Your task to perform on an android device: Look up the best rated gaming chair on Best Buy Image 0: 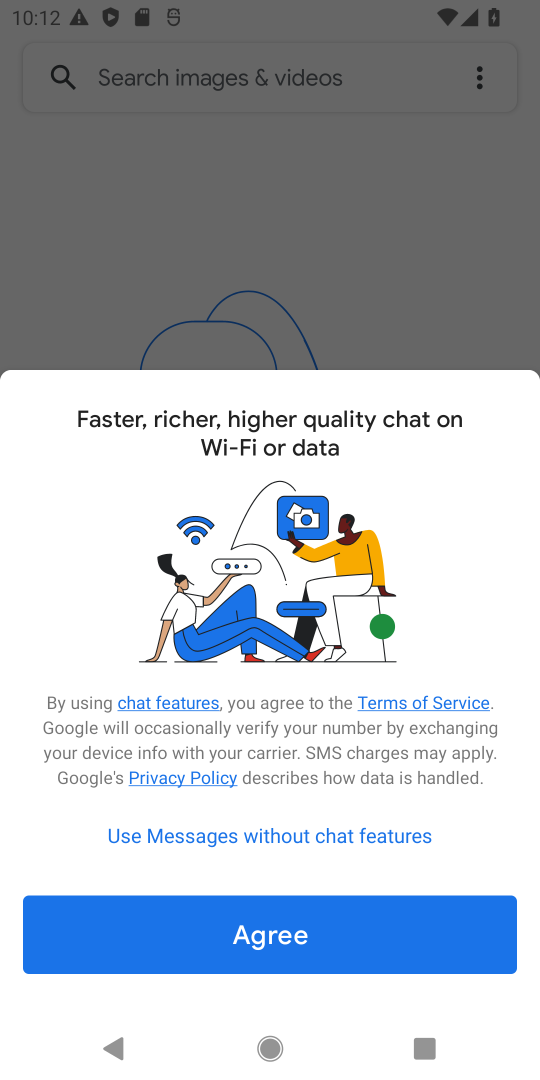
Step 0: press home button
Your task to perform on an android device: Look up the best rated gaming chair on Best Buy Image 1: 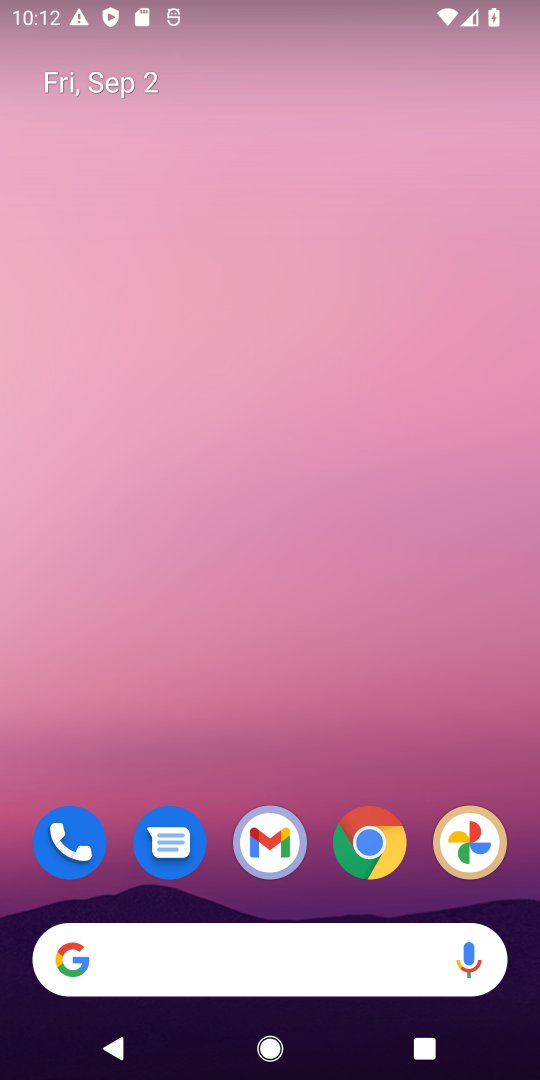
Step 1: drag from (228, 803) to (195, 183)
Your task to perform on an android device: Look up the best rated gaming chair on Best Buy Image 2: 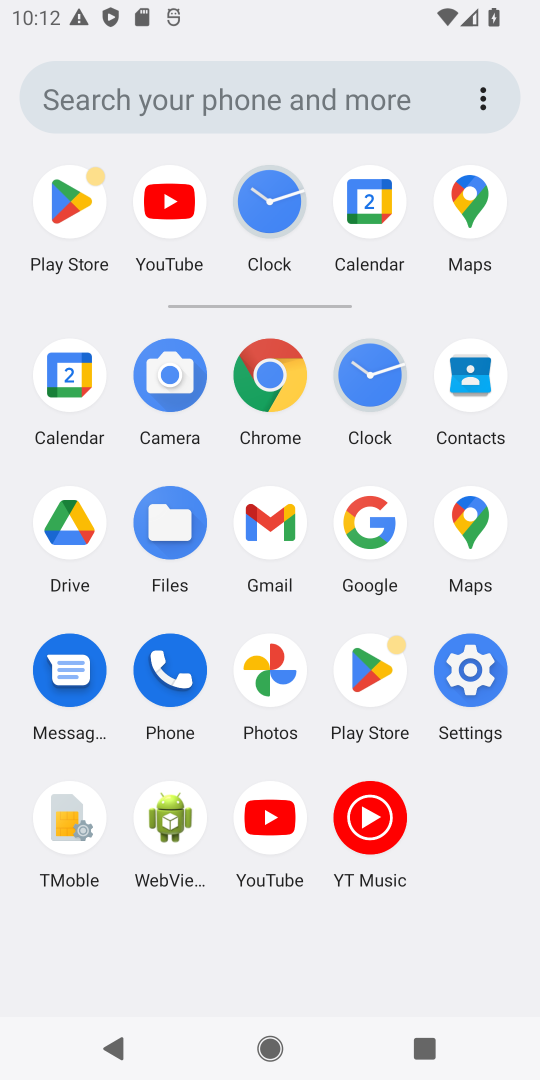
Step 2: click (258, 383)
Your task to perform on an android device: Look up the best rated gaming chair on Best Buy Image 3: 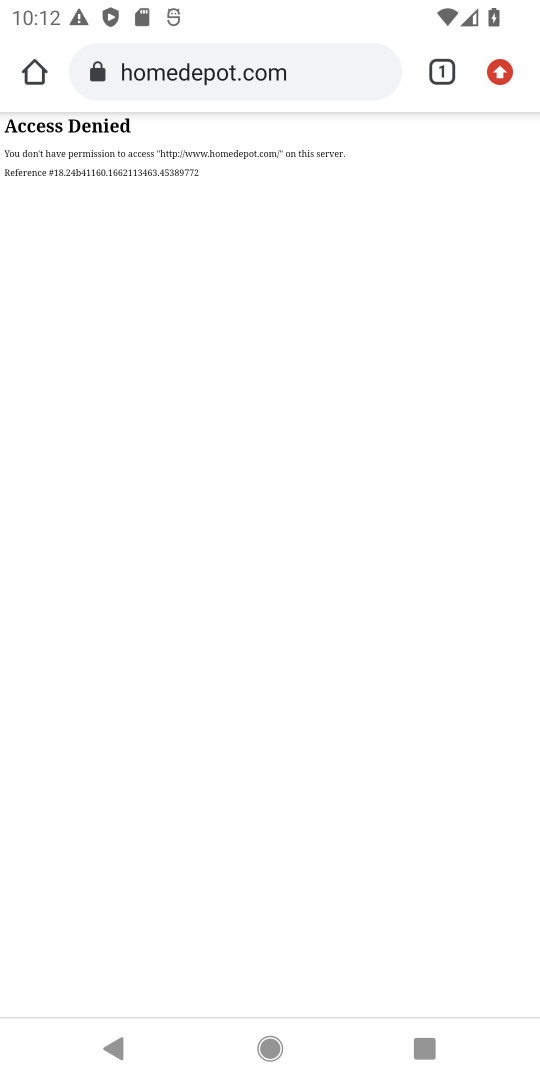
Step 3: click (237, 94)
Your task to perform on an android device: Look up the best rated gaming chair on Best Buy Image 4: 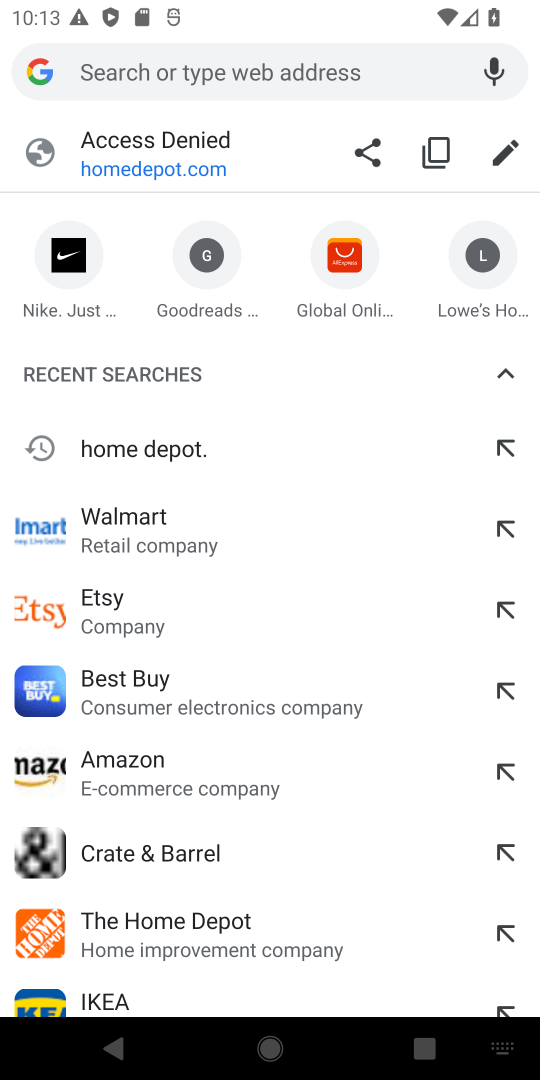
Step 4: type " Best Buy"
Your task to perform on an android device: Look up the best rated gaming chair on Best Buy Image 5: 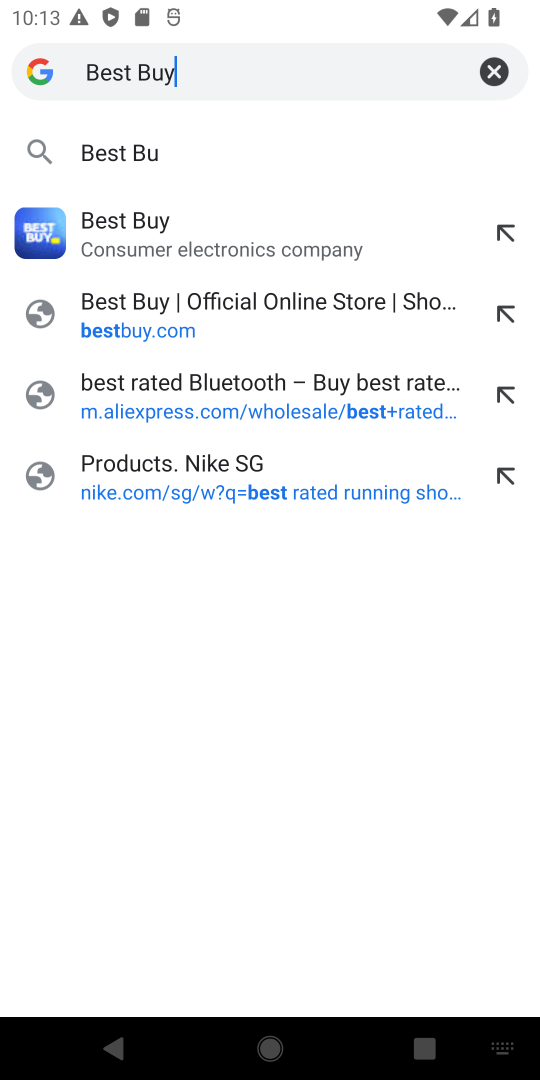
Step 5: press enter
Your task to perform on an android device: Look up the best rated gaming chair on Best Buy Image 6: 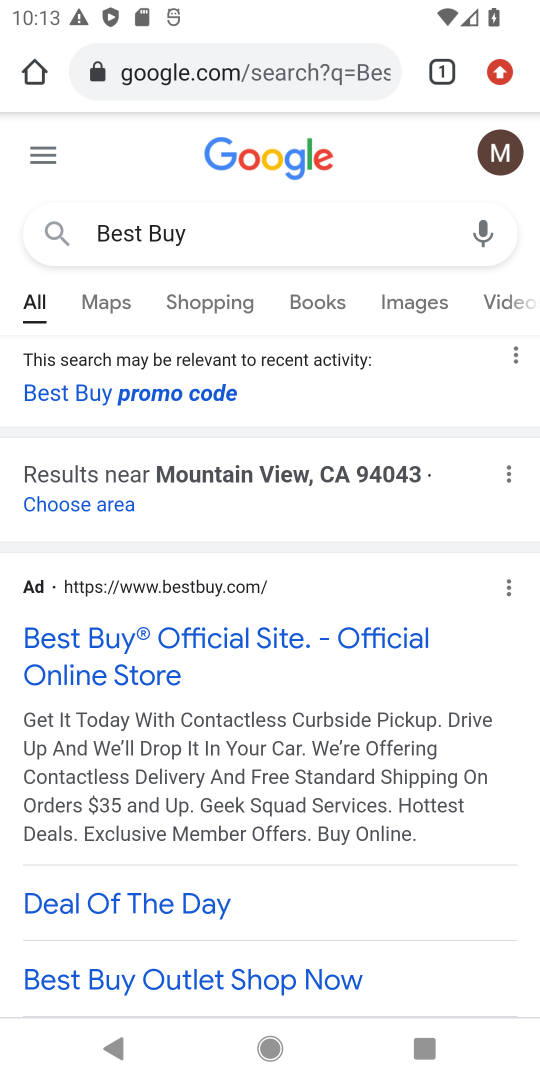
Step 6: drag from (376, 601) to (410, 479)
Your task to perform on an android device: Look up the best rated gaming chair on Best Buy Image 7: 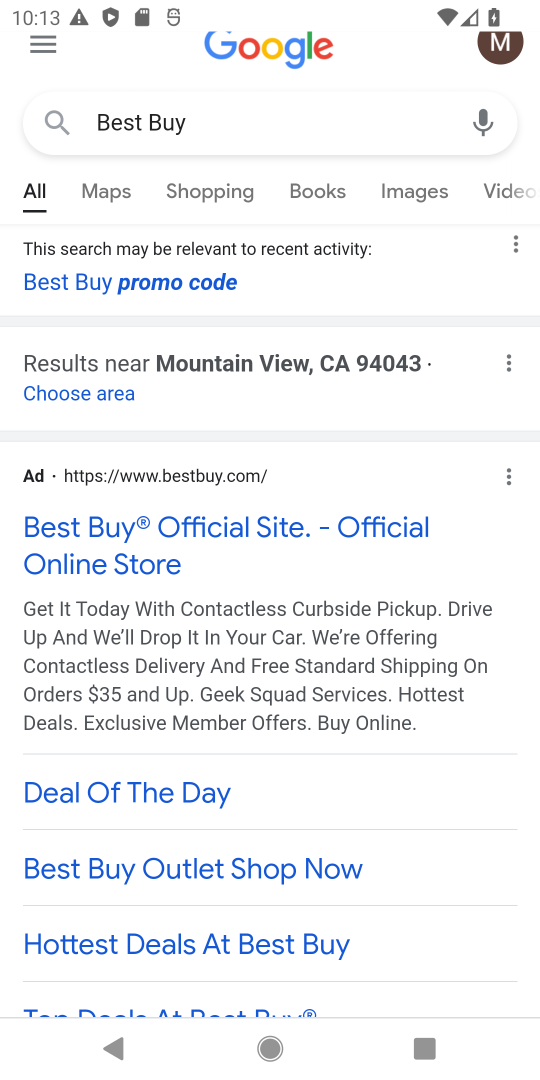
Step 7: drag from (310, 700) to (303, 522)
Your task to perform on an android device: Look up the best rated gaming chair on Best Buy Image 8: 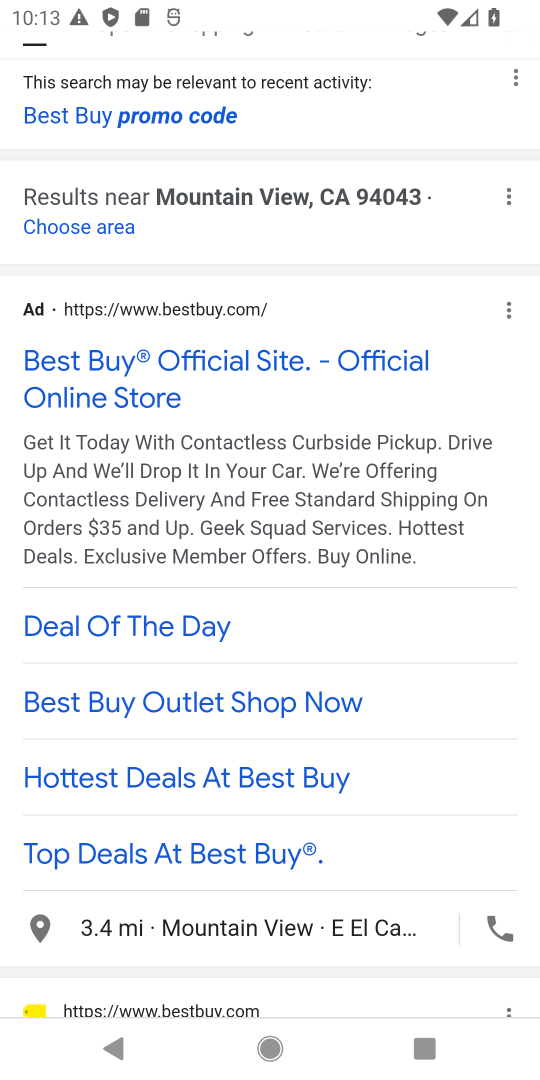
Step 8: drag from (241, 832) to (261, 453)
Your task to perform on an android device: Look up the best rated gaming chair on Best Buy Image 9: 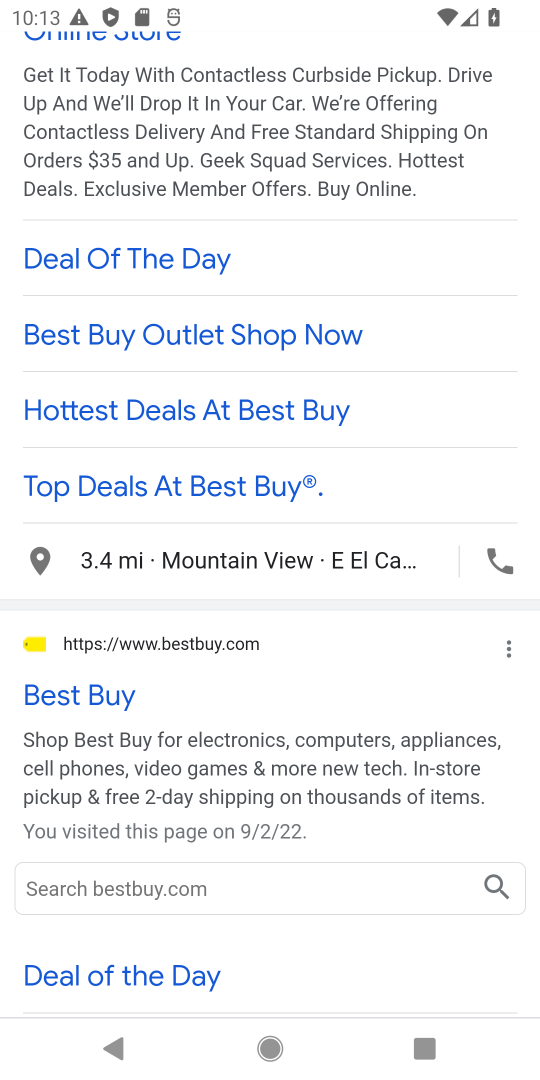
Step 9: click (89, 694)
Your task to perform on an android device: Look up the best rated gaming chair on Best Buy Image 10: 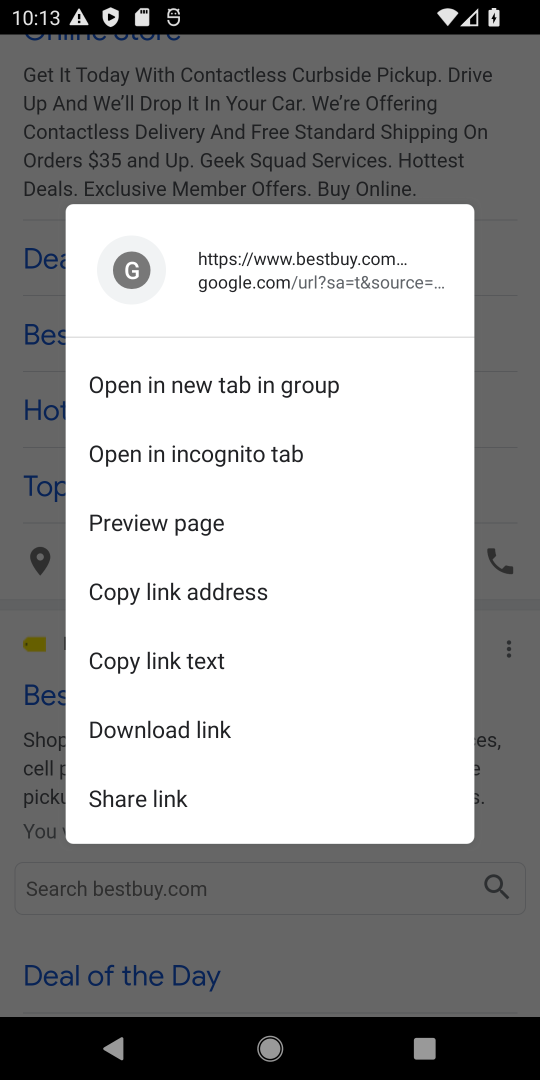
Step 10: click (511, 478)
Your task to perform on an android device: Look up the best rated gaming chair on Best Buy Image 11: 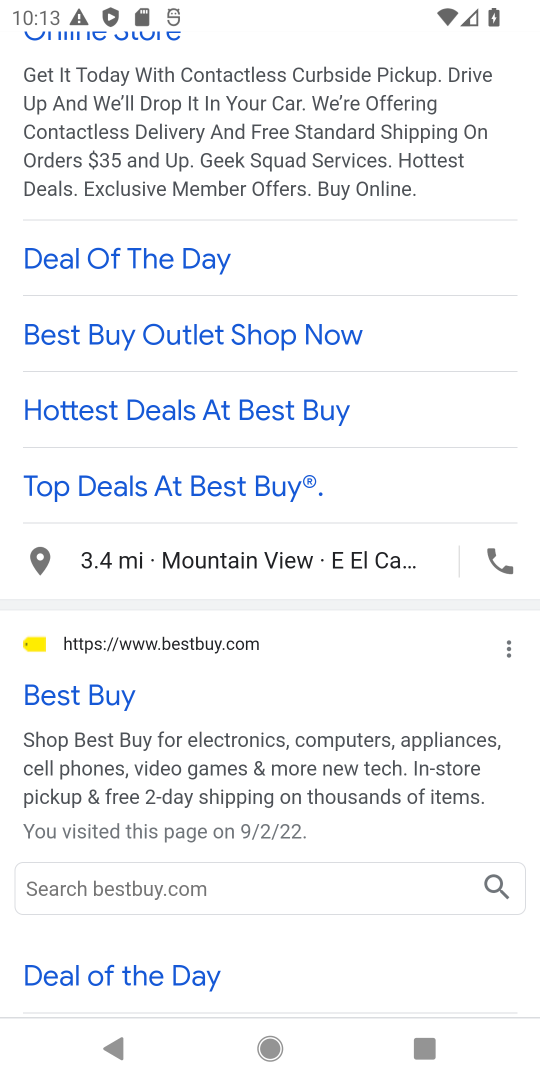
Step 11: click (87, 704)
Your task to perform on an android device: Look up the best rated gaming chair on Best Buy Image 12: 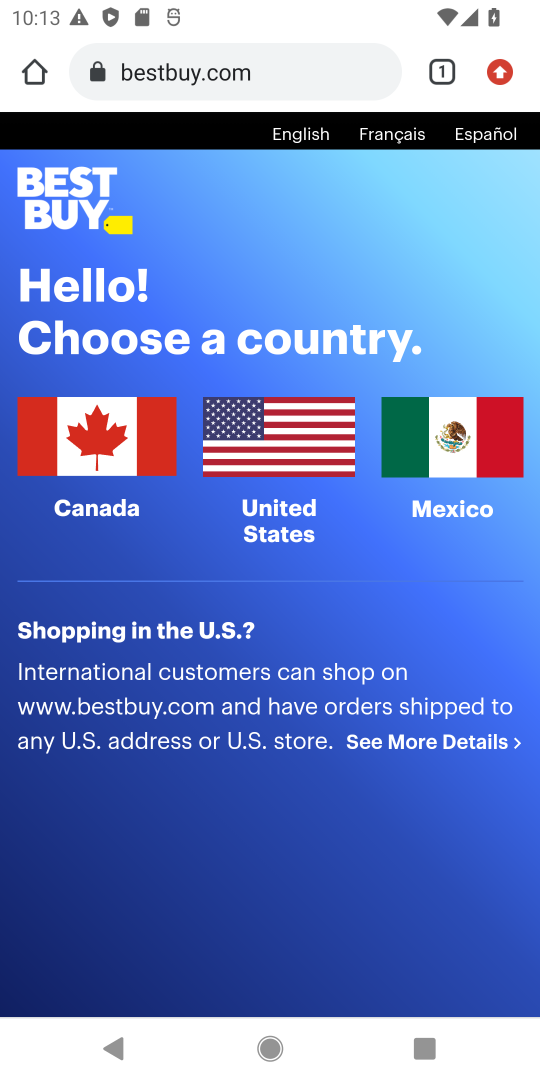
Step 12: click (271, 461)
Your task to perform on an android device: Look up the best rated gaming chair on Best Buy Image 13: 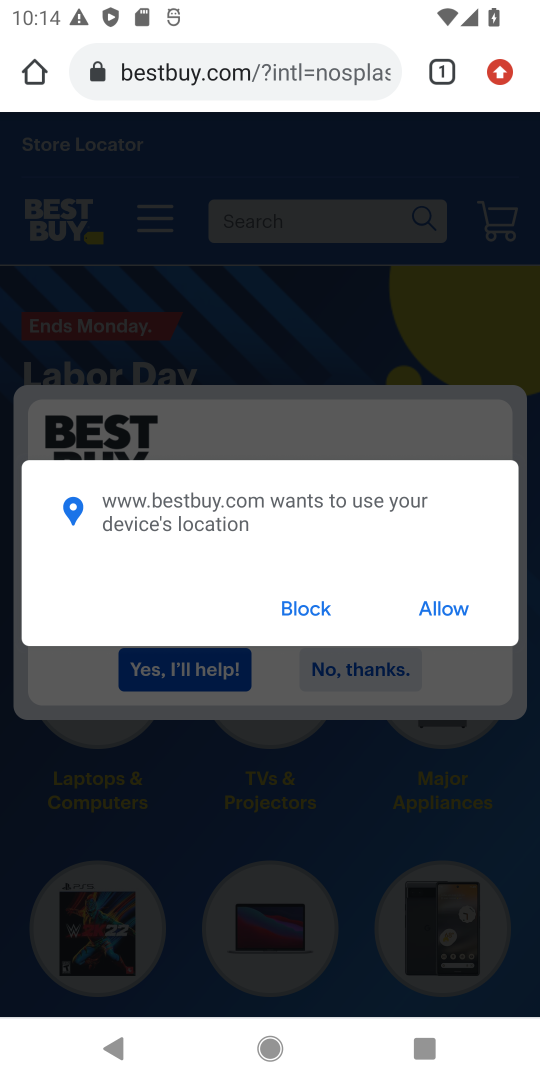
Step 13: click (449, 604)
Your task to perform on an android device: Look up the best rated gaming chair on Best Buy Image 14: 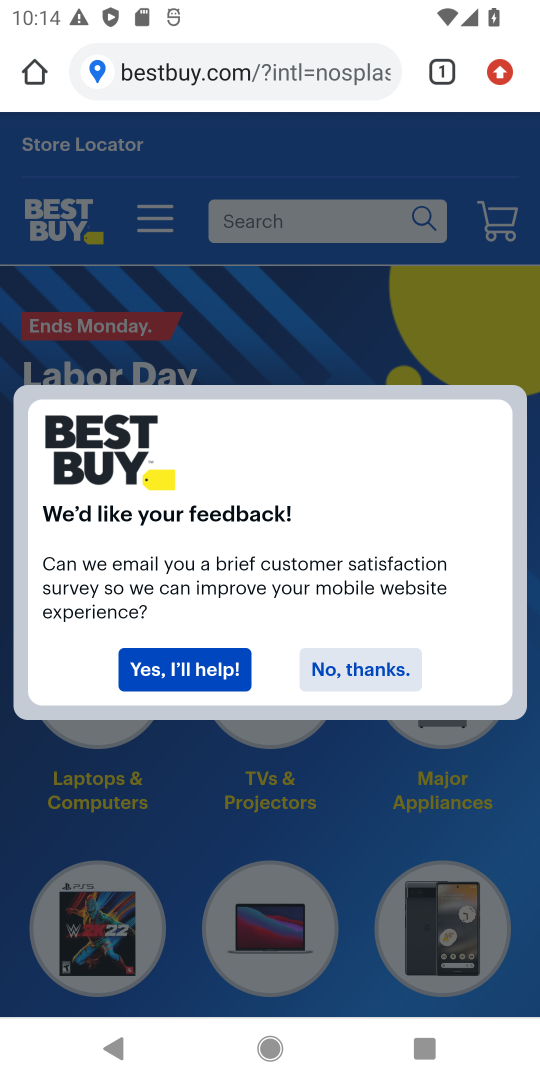
Step 14: click (349, 647)
Your task to perform on an android device: Look up the best rated gaming chair on Best Buy Image 15: 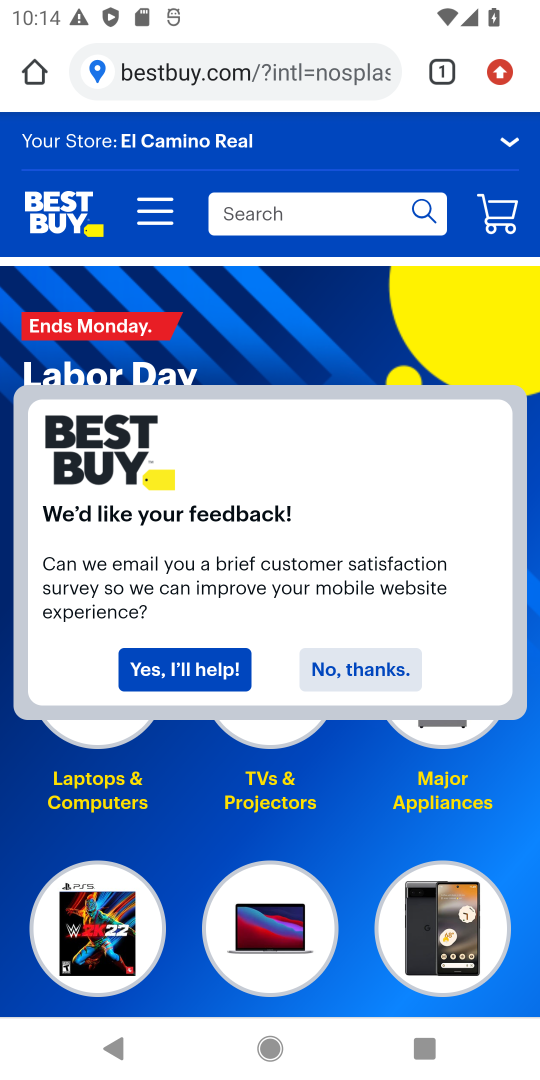
Step 15: click (305, 197)
Your task to perform on an android device: Look up the best rated gaming chair on Best Buy Image 16: 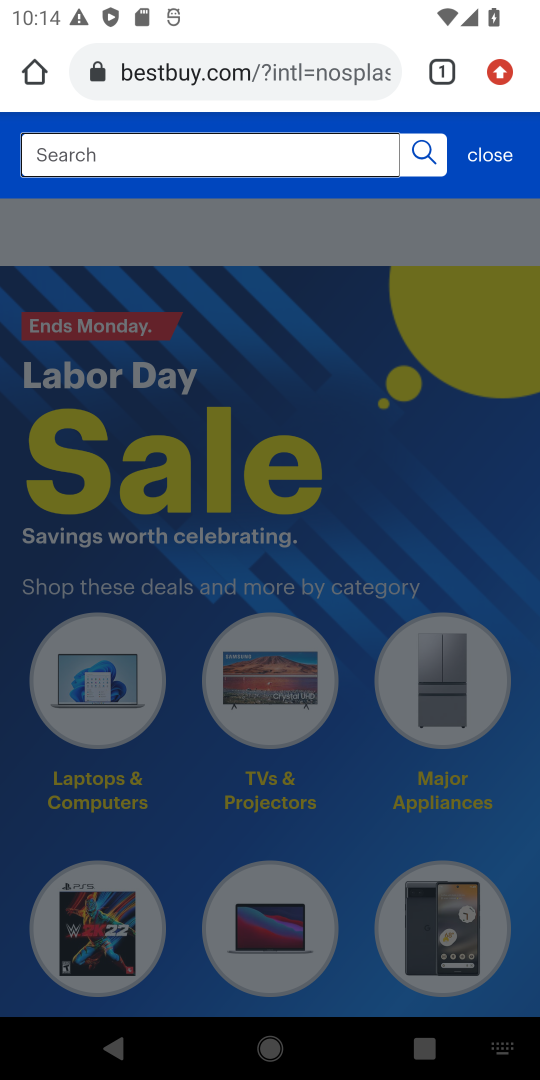
Step 16: press enter
Your task to perform on an android device: Look up the best rated gaming chair on Best Buy Image 17: 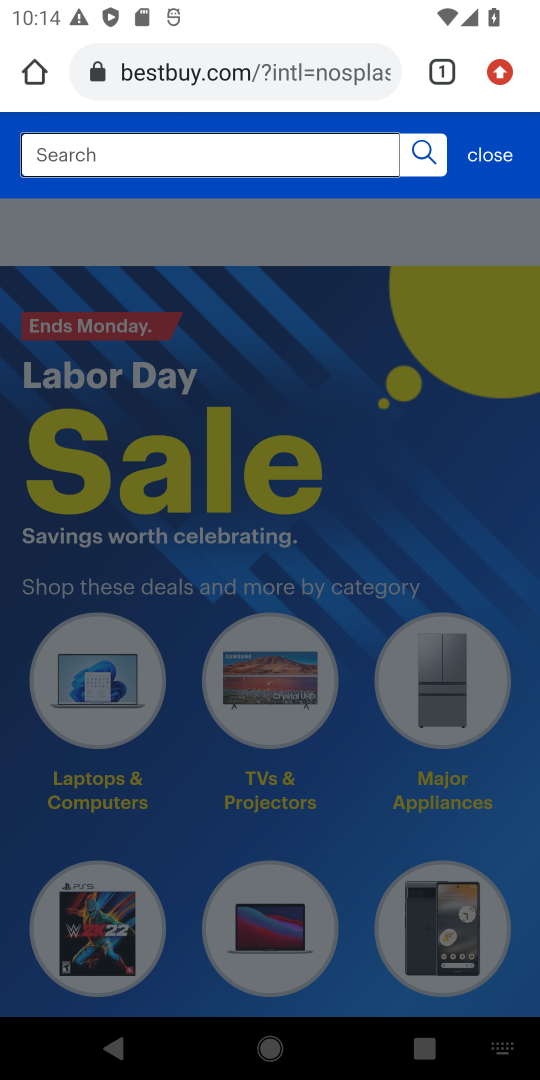
Step 17: type "best rated gaming chair "
Your task to perform on an android device: Look up the best rated gaming chair on Best Buy Image 18: 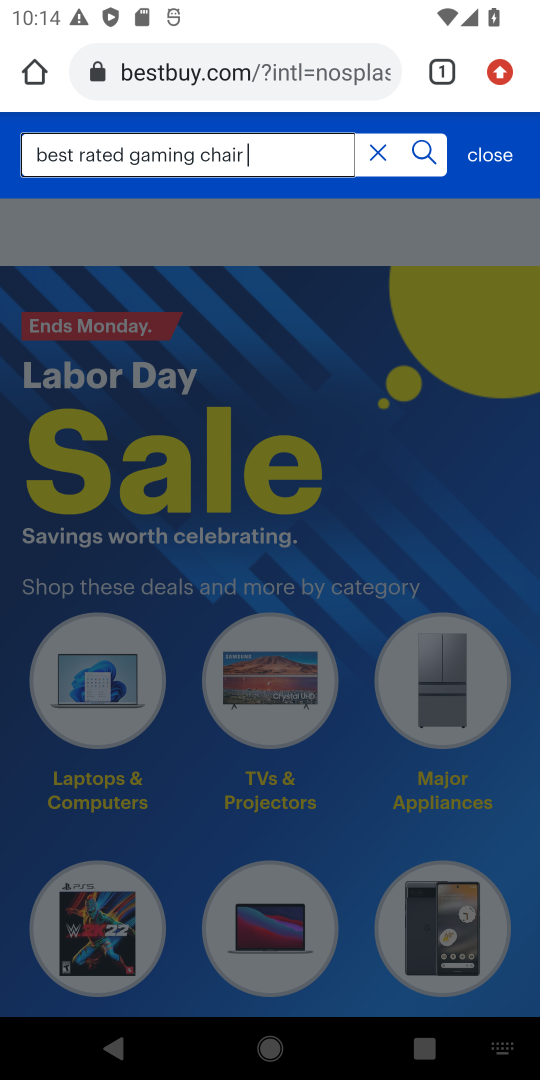
Step 18: press enter
Your task to perform on an android device: Look up the best rated gaming chair on Best Buy Image 19: 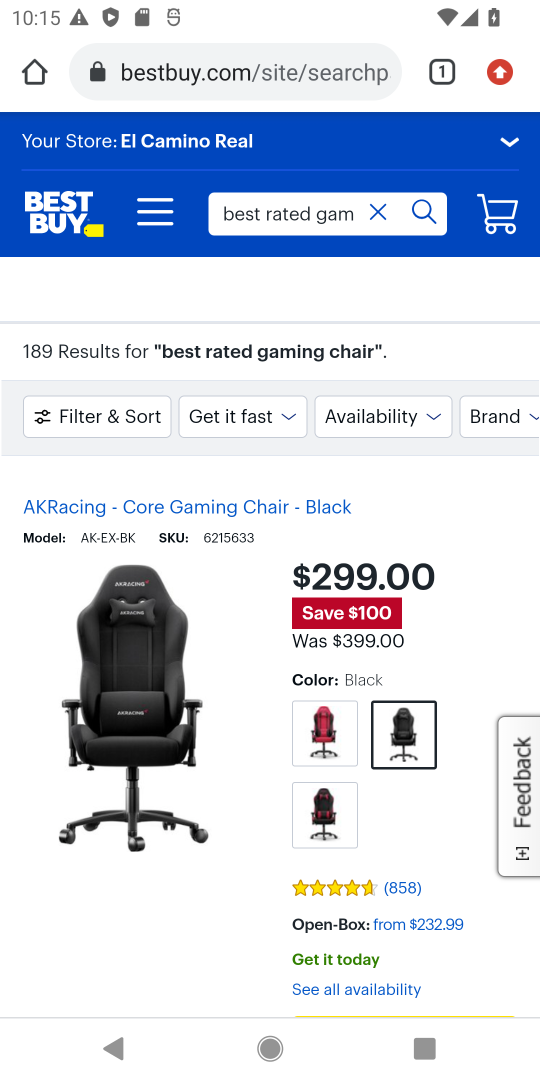
Step 19: task complete